Your task to perform on an android device: Open calendar and show me the third week of next month Image 0: 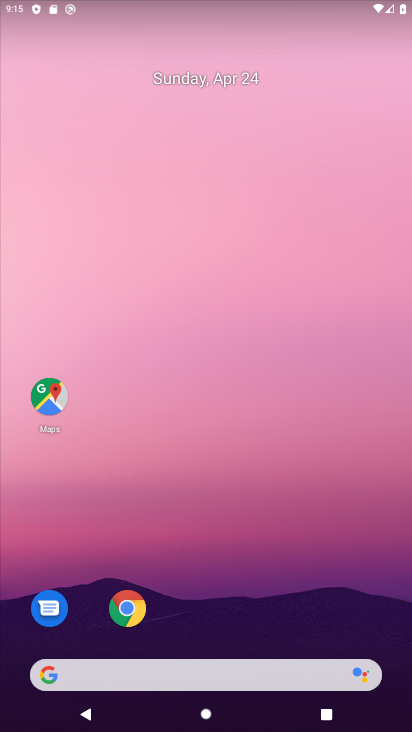
Step 0: drag from (276, 620) to (267, 247)
Your task to perform on an android device: Open calendar and show me the third week of next month Image 1: 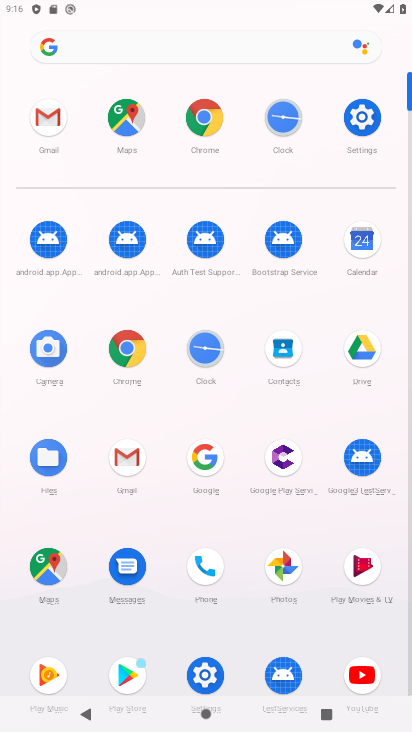
Step 1: click (356, 236)
Your task to perform on an android device: Open calendar and show me the third week of next month Image 2: 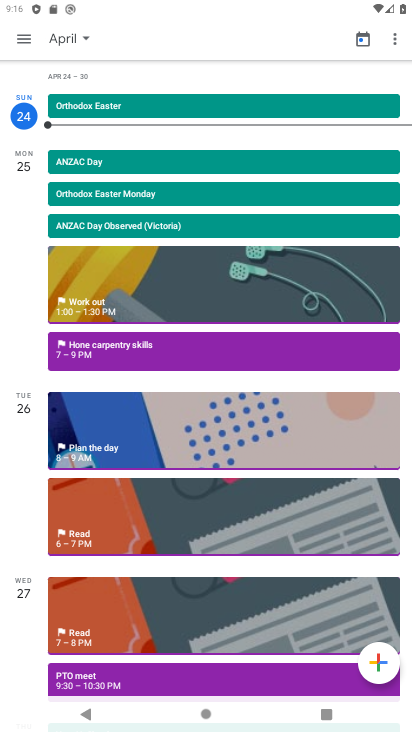
Step 2: click (25, 42)
Your task to perform on an android device: Open calendar and show me the third week of next month Image 3: 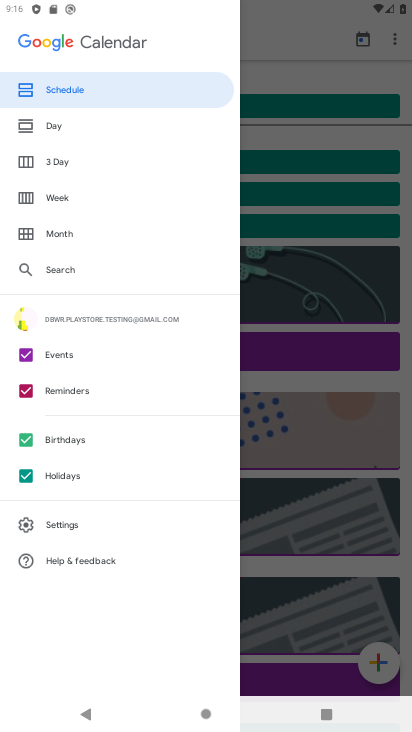
Step 3: click (60, 228)
Your task to perform on an android device: Open calendar and show me the third week of next month Image 4: 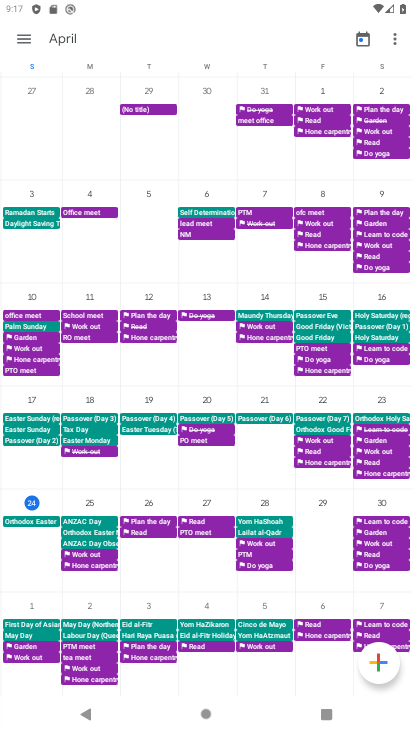
Step 4: drag from (313, 497) to (1, 455)
Your task to perform on an android device: Open calendar and show me the third week of next month Image 5: 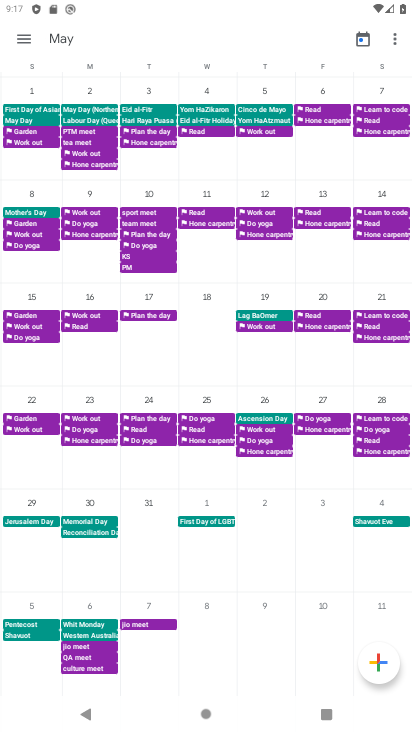
Step 5: click (85, 413)
Your task to perform on an android device: Open calendar and show me the third week of next month Image 6: 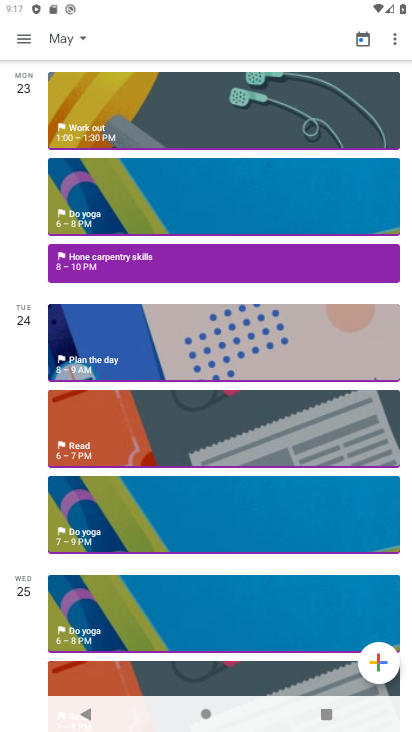
Step 6: task complete